Your task to perform on an android device: turn off airplane mode Image 0: 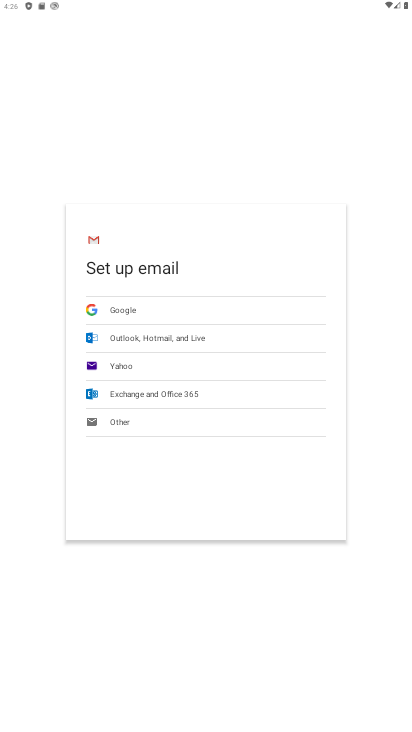
Step 0: press home button
Your task to perform on an android device: turn off airplane mode Image 1: 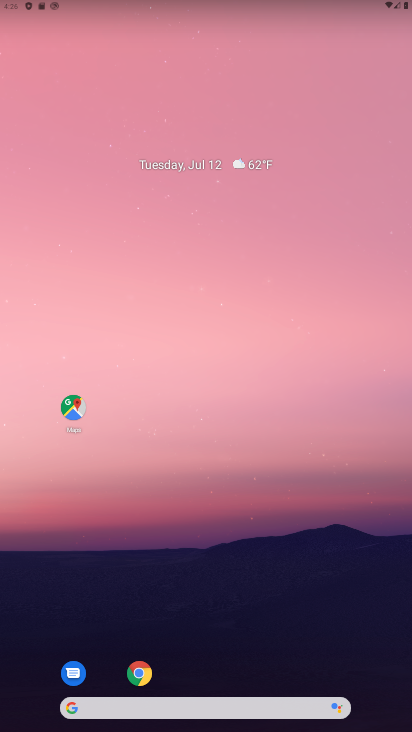
Step 1: drag from (205, 695) to (203, 184)
Your task to perform on an android device: turn off airplane mode Image 2: 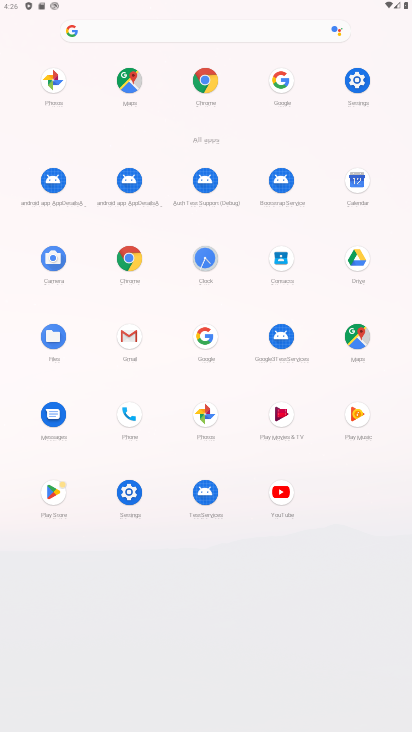
Step 2: click (356, 81)
Your task to perform on an android device: turn off airplane mode Image 3: 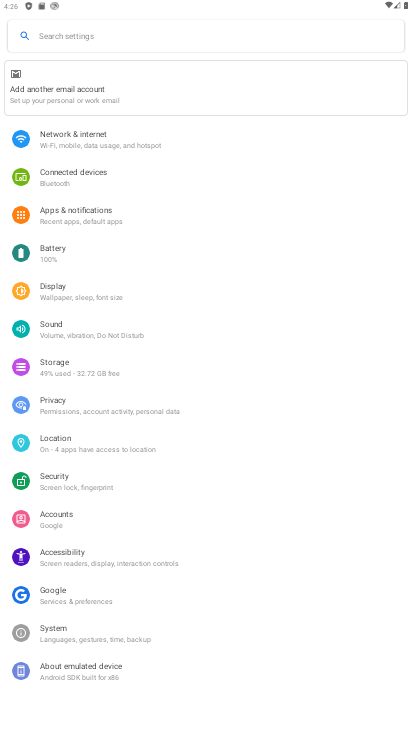
Step 3: click (61, 134)
Your task to perform on an android device: turn off airplane mode Image 4: 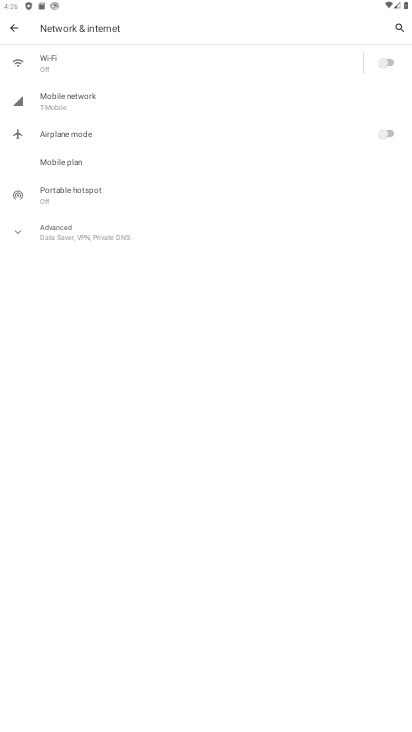
Step 4: task complete